Your task to perform on an android device: Search for sushi restaurants on Maps Image 0: 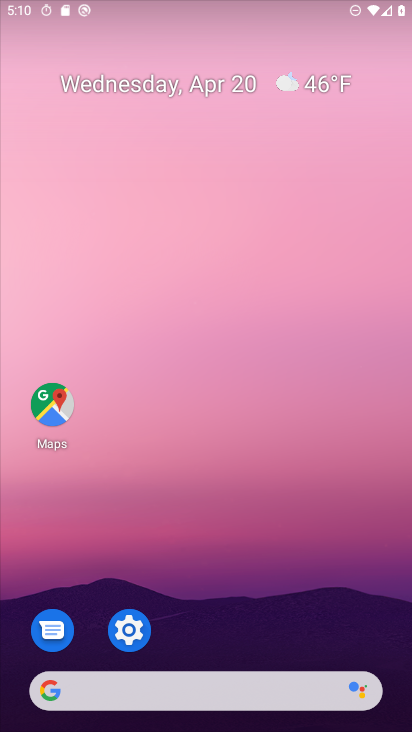
Step 0: drag from (292, 698) to (304, 2)
Your task to perform on an android device: Search for sushi restaurants on Maps Image 1: 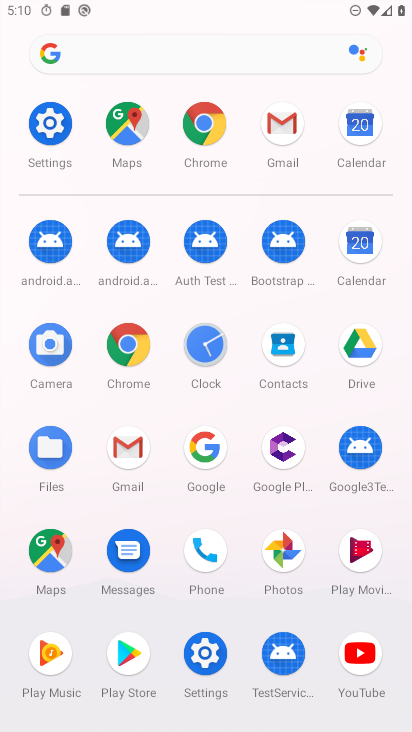
Step 1: click (33, 549)
Your task to perform on an android device: Search for sushi restaurants on Maps Image 2: 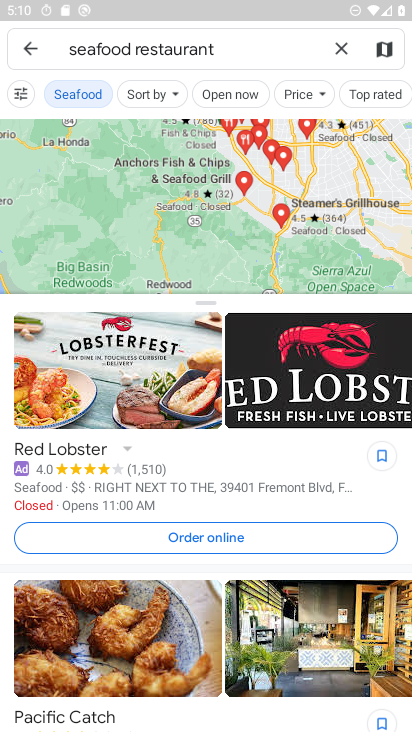
Step 2: click (334, 53)
Your task to perform on an android device: Search for sushi restaurants on Maps Image 3: 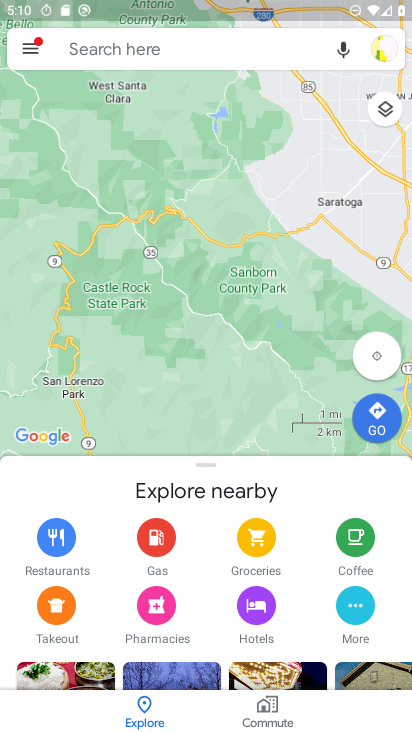
Step 3: click (255, 55)
Your task to perform on an android device: Search for sushi restaurants on Maps Image 4: 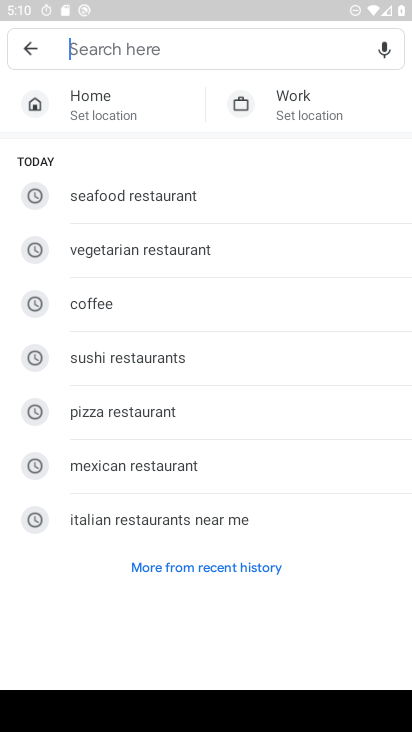
Step 4: click (232, 340)
Your task to perform on an android device: Search for sushi restaurants on Maps Image 5: 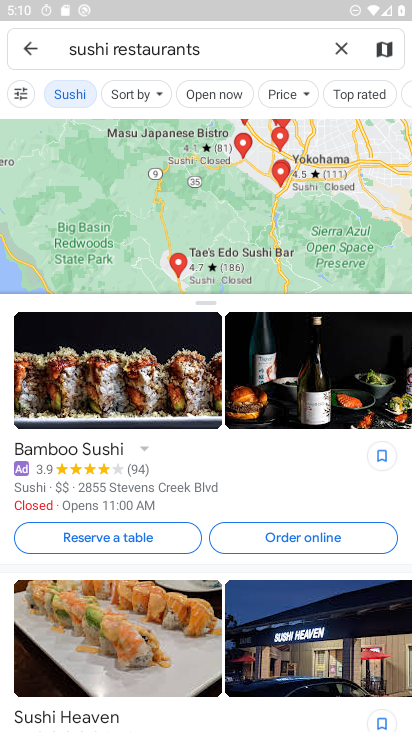
Step 5: task complete